Your task to perform on an android device: Open the web browser Image 0: 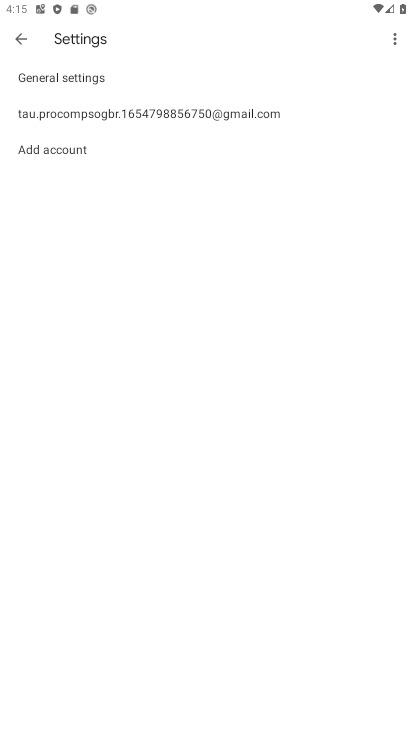
Step 0: press home button
Your task to perform on an android device: Open the web browser Image 1: 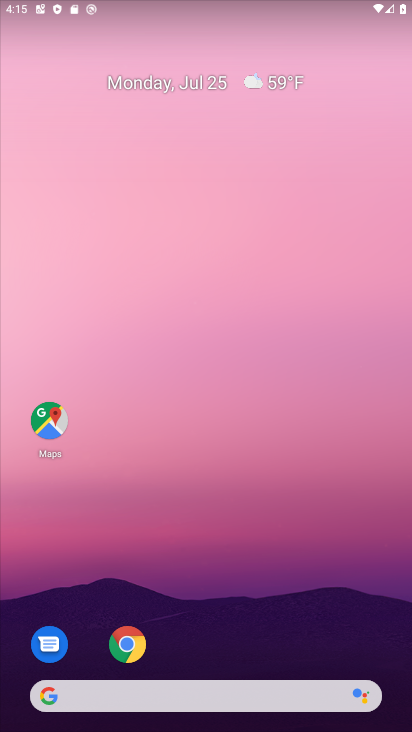
Step 1: click (129, 650)
Your task to perform on an android device: Open the web browser Image 2: 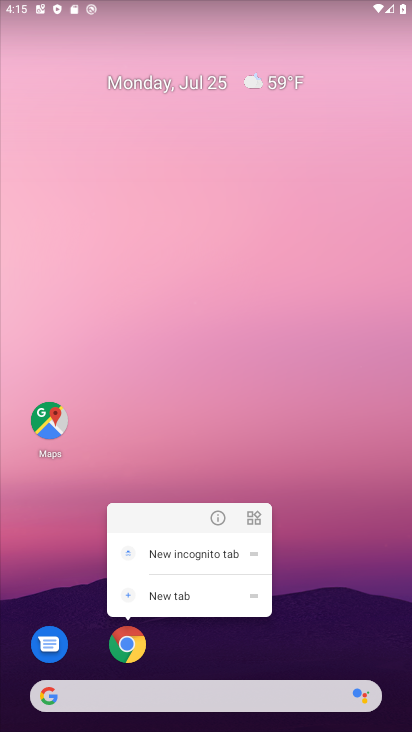
Step 2: click (129, 650)
Your task to perform on an android device: Open the web browser Image 3: 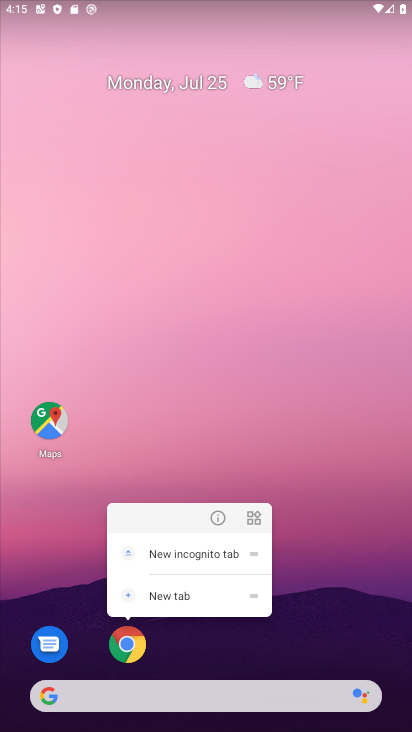
Step 3: click (127, 644)
Your task to perform on an android device: Open the web browser Image 4: 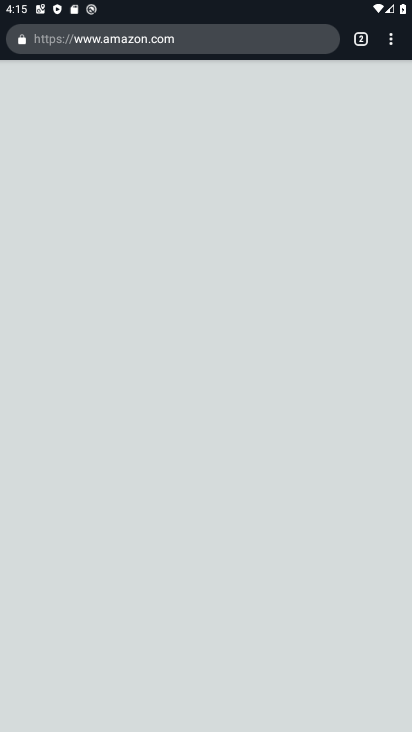
Step 4: task complete